Your task to perform on an android device: check android version Image 0: 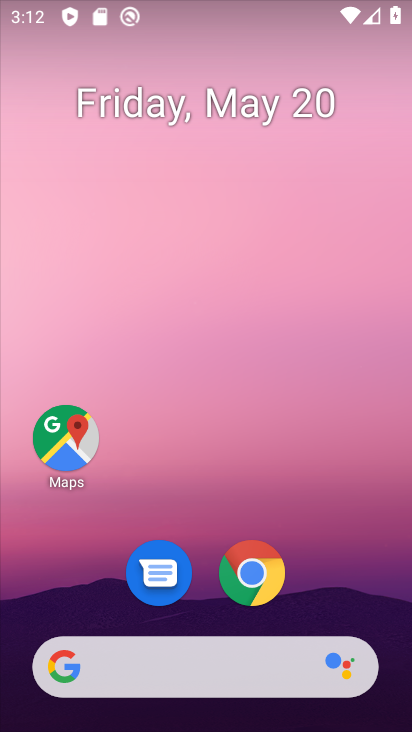
Step 0: drag from (211, 636) to (286, 24)
Your task to perform on an android device: check android version Image 1: 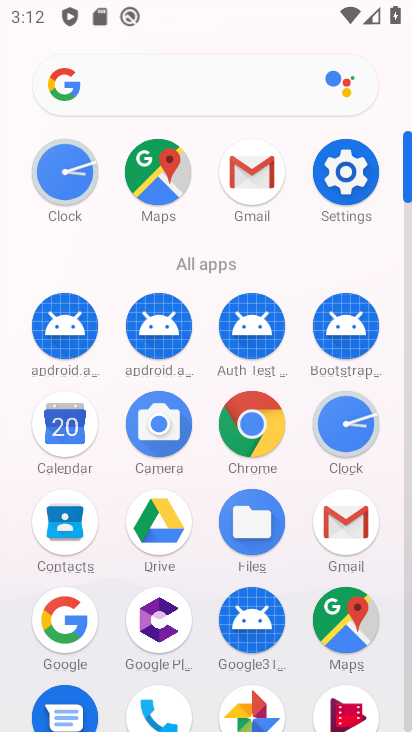
Step 1: click (332, 182)
Your task to perform on an android device: check android version Image 2: 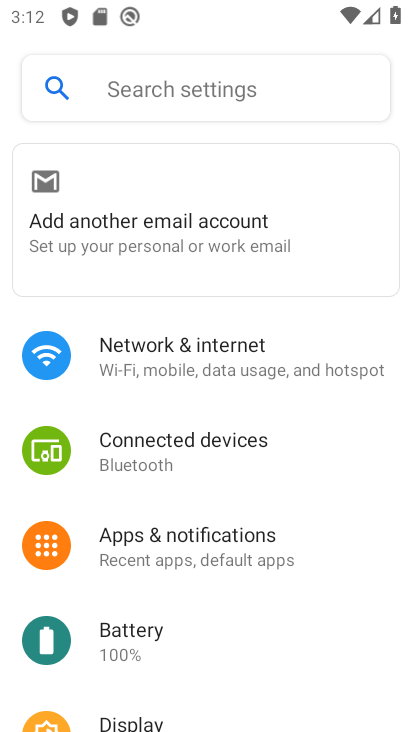
Step 2: drag from (260, 618) to (217, 87)
Your task to perform on an android device: check android version Image 3: 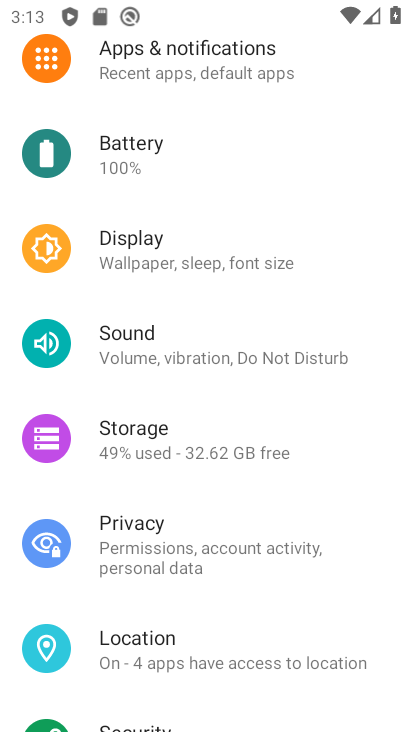
Step 3: drag from (231, 640) to (202, 155)
Your task to perform on an android device: check android version Image 4: 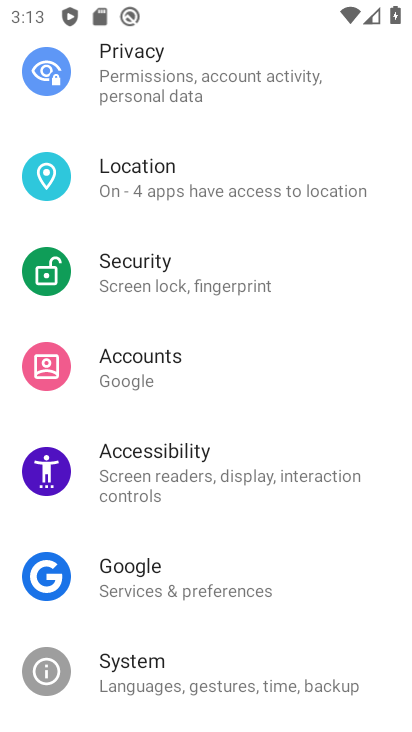
Step 4: drag from (222, 674) to (187, 226)
Your task to perform on an android device: check android version Image 5: 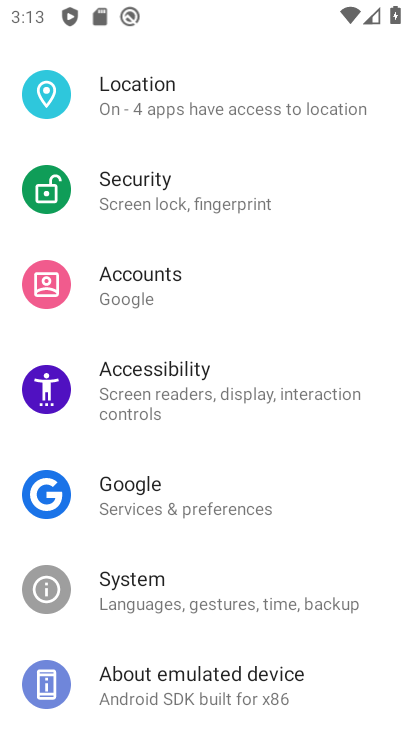
Step 5: click (203, 680)
Your task to perform on an android device: check android version Image 6: 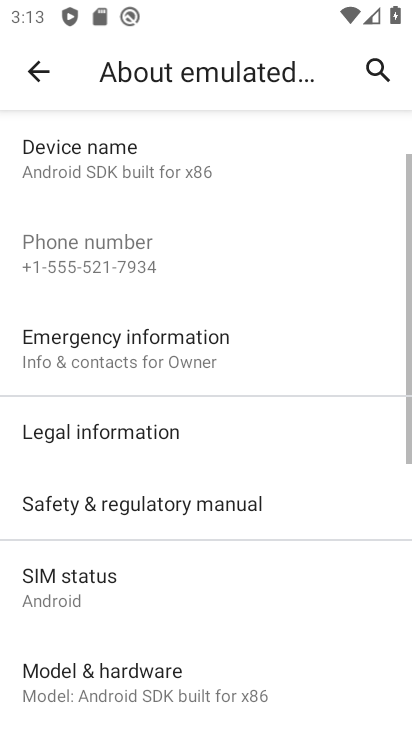
Step 6: drag from (177, 621) to (159, 169)
Your task to perform on an android device: check android version Image 7: 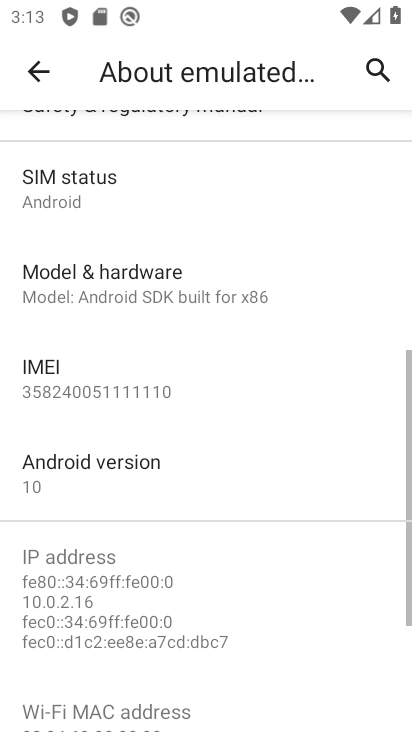
Step 7: click (126, 454)
Your task to perform on an android device: check android version Image 8: 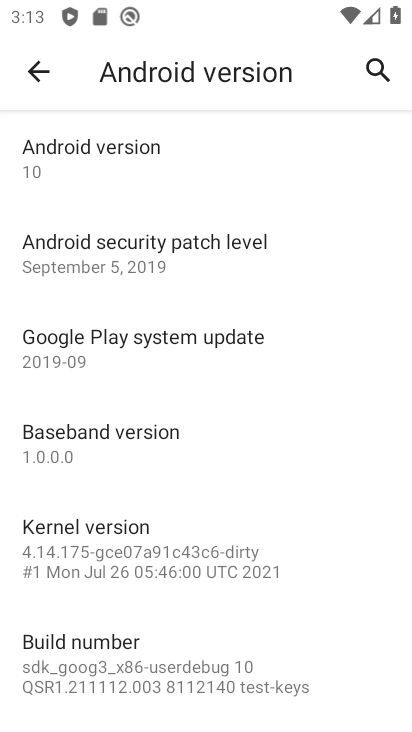
Step 8: task complete